Your task to perform on an android device: change text size in settings app Image 0: 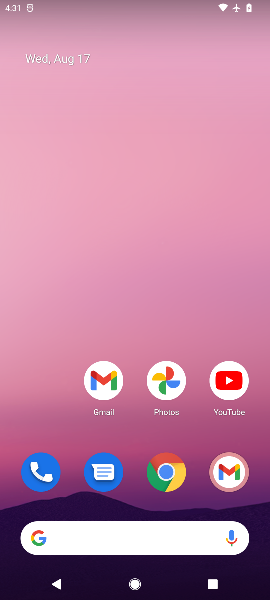
Step 0: click (173, 474)
Your task to perform on an android device: change text size in settings app Image 1: 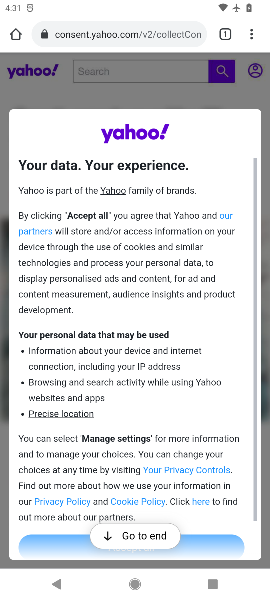
Step 1: press home button
Your task to perform on an android device: change text size in settings app Image 2: 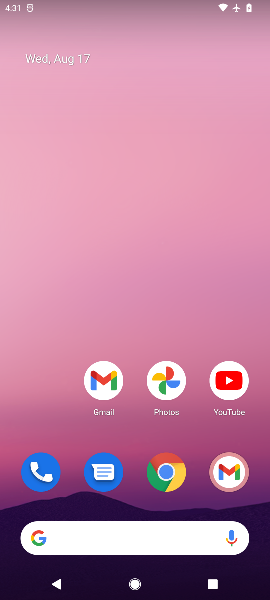
Step 2: drag from (143, 507) to (150, 5)
Your task to perform on an android device: change text size in settings app Image 3: 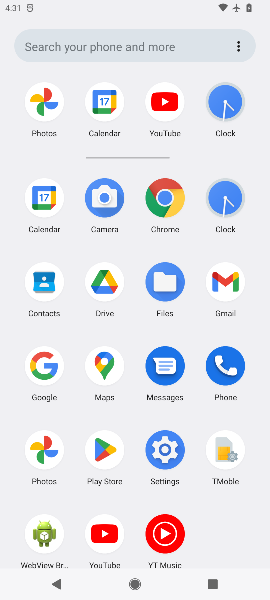
Step 3: click (160, 458)
Your task to perform on an android device: change text size in settings app Image 4: 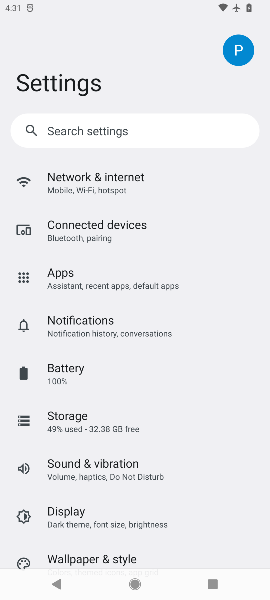
Step 4: click (92, 516)
Your task to perform on an android device: change text size in settings app Image 5: 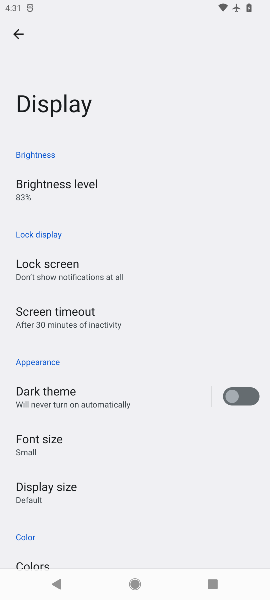
Step 5: click (52, 443)
Your task to perform on an android device: change text size in settings app Image 6: 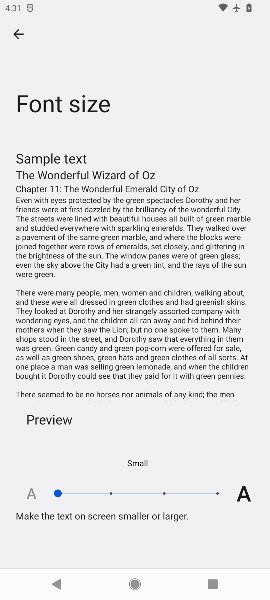
Step 6: click (112, 494)
Your task to perform on an android device: change text size in settings app Image 7: 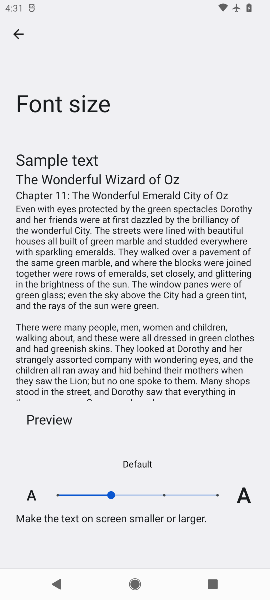
Step 7: task complete